Your task to perform on an android device: turn on location history Image 0: 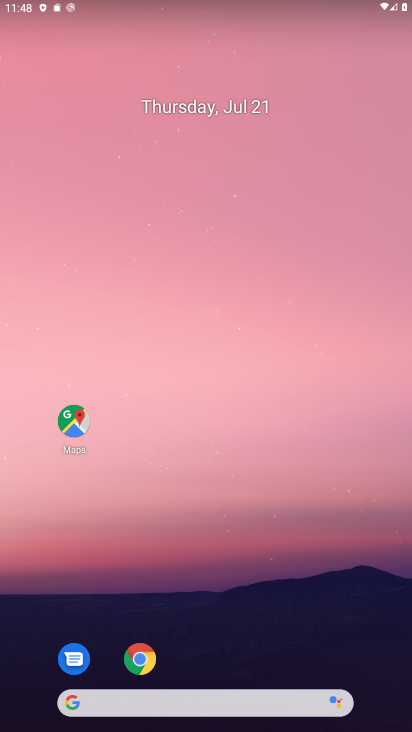
Step 0: task complete